Your task to perform on an android device: clear all cookies in the chrome app Image 0: 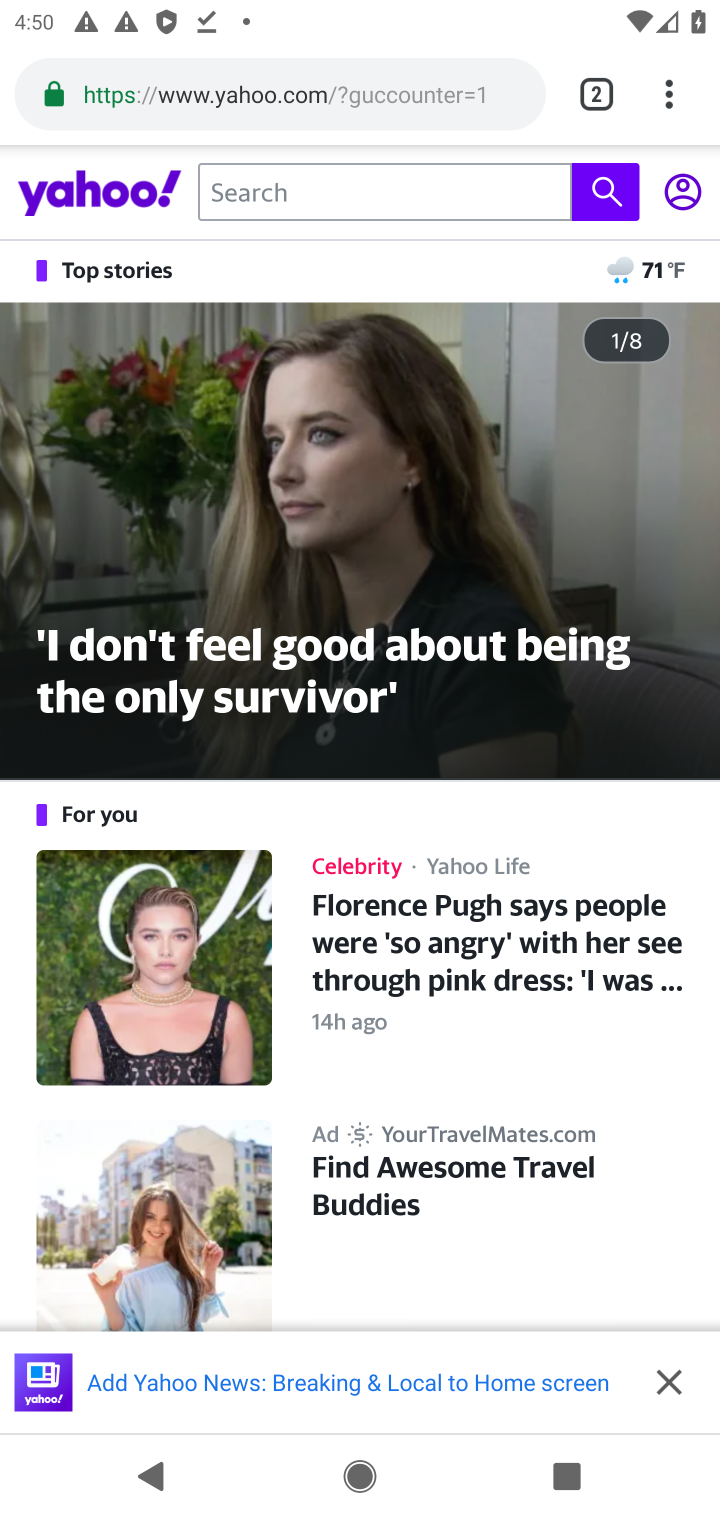
Step 0: click (667, 96)
Your task to perform on an android device: clear all cookies in the chrome app Image 1: 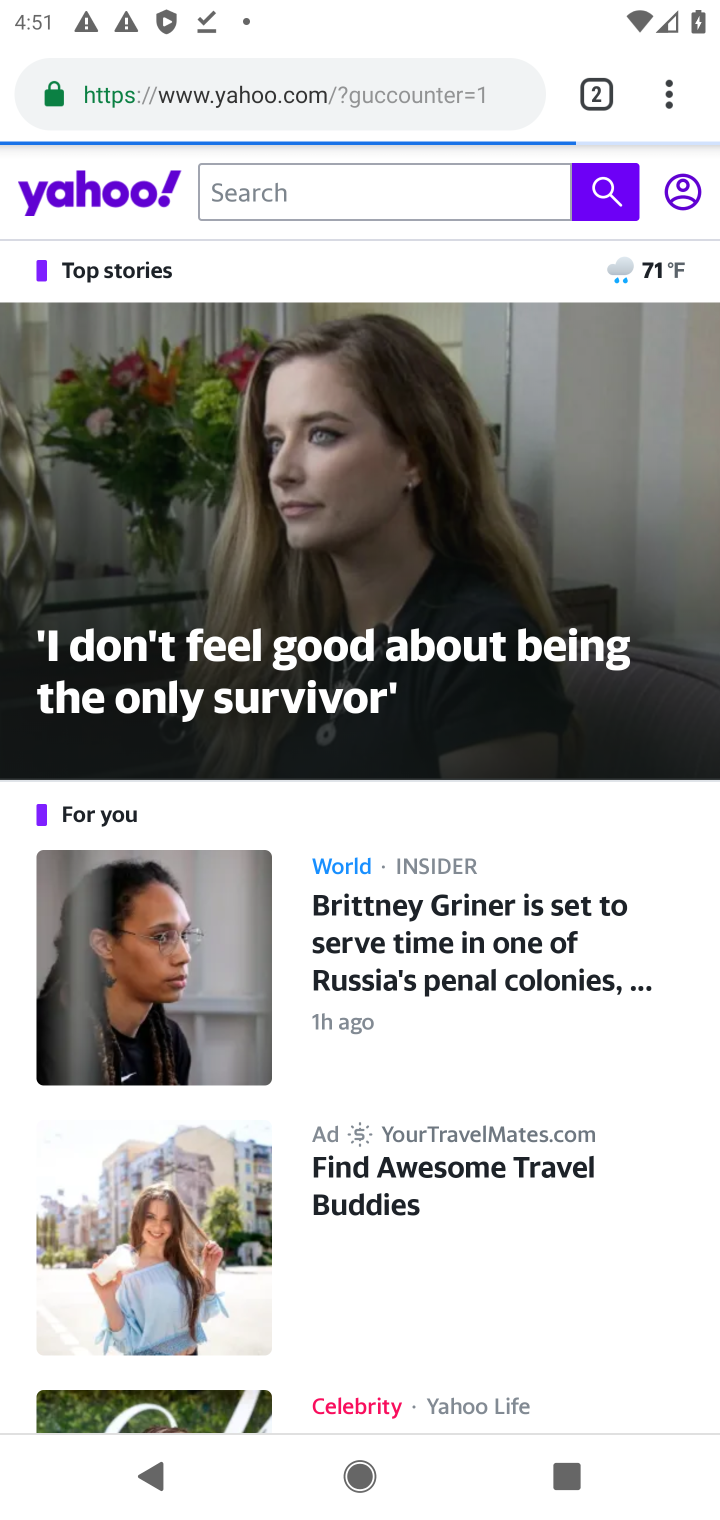
Step 1: drag from (668, 105) to (360, 533)
Your task to perform on an android device: clear all cookies in the chrome app Image 2: 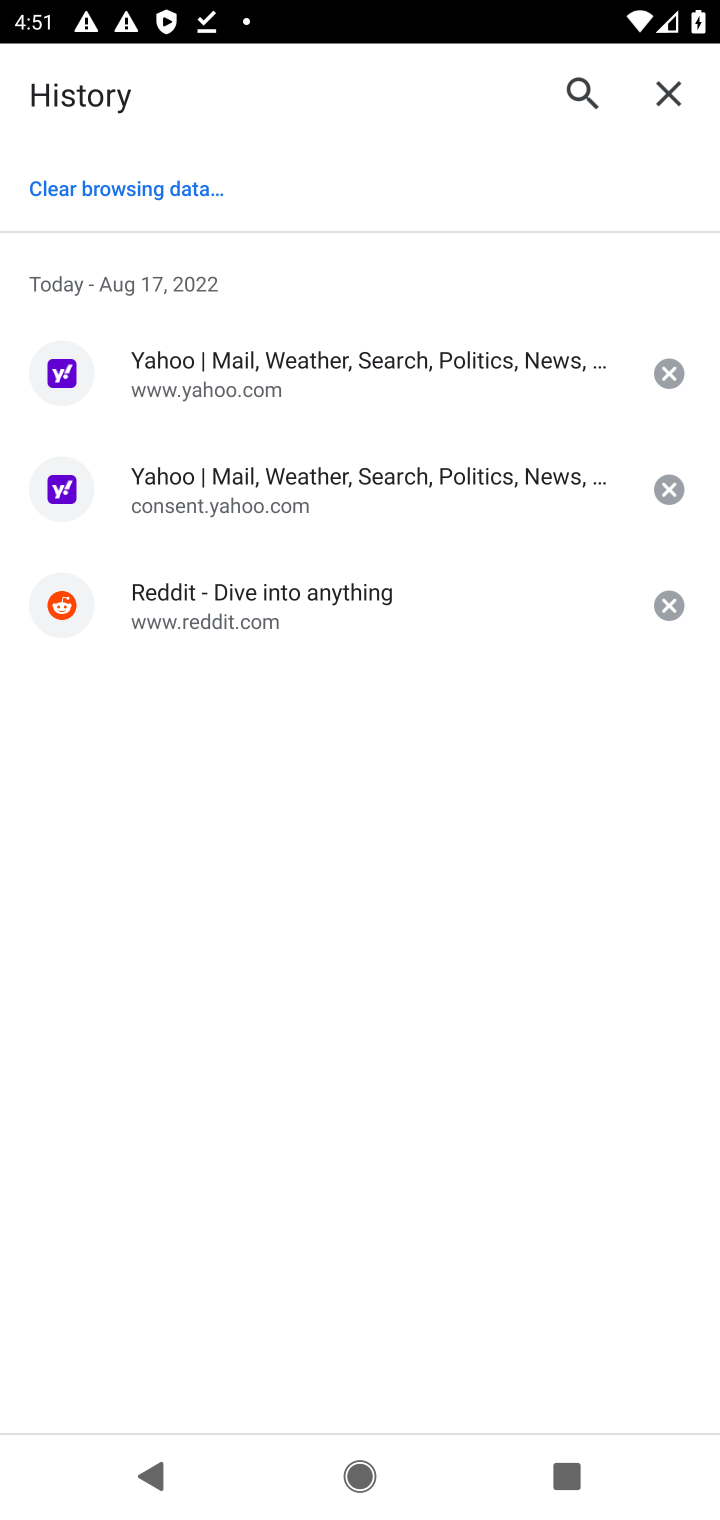
Step 2: click (120, 188)
Your task to perform on an android device: clear all cookies in the chrome app Image 3: 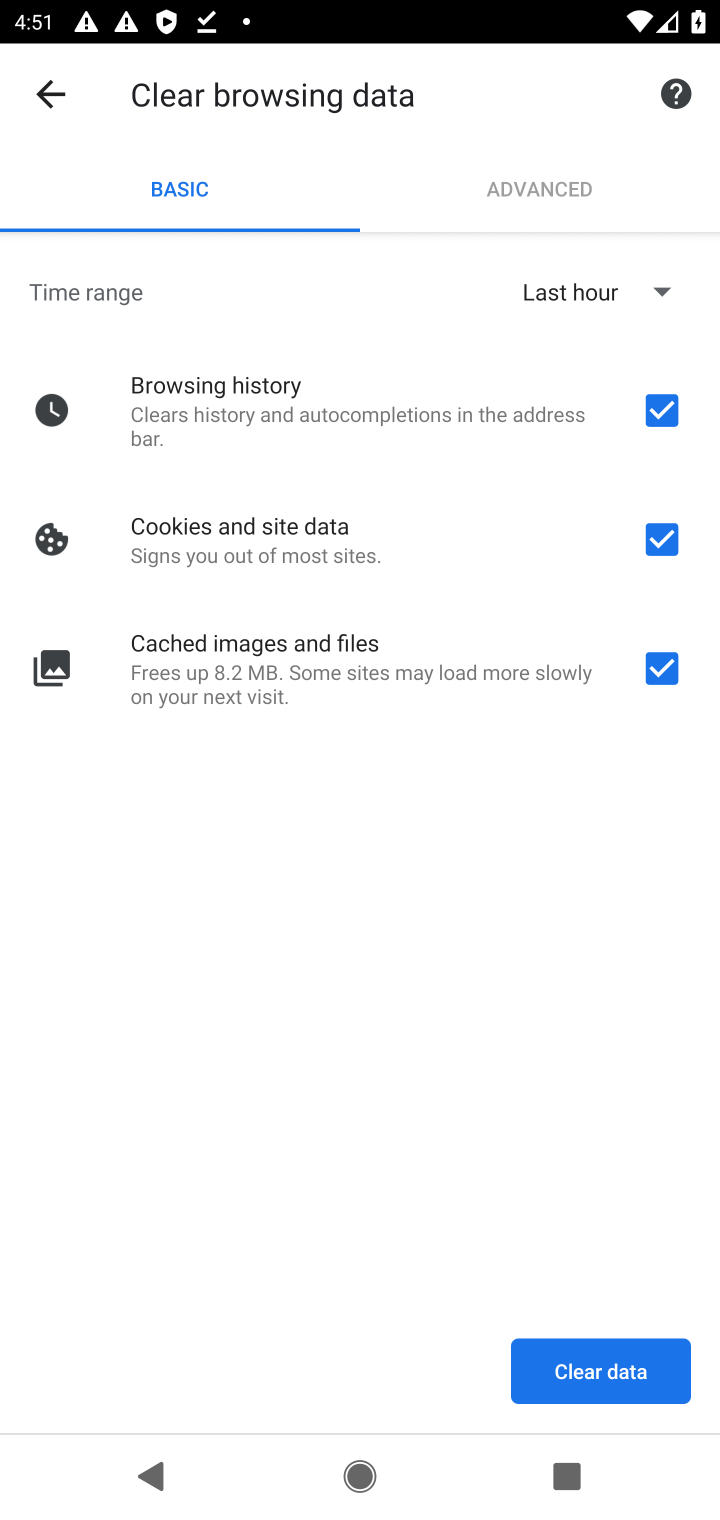
Step 3: click (655, 408)
Your task to perform on an android device: clear all cookies in the chrome app Image 4: 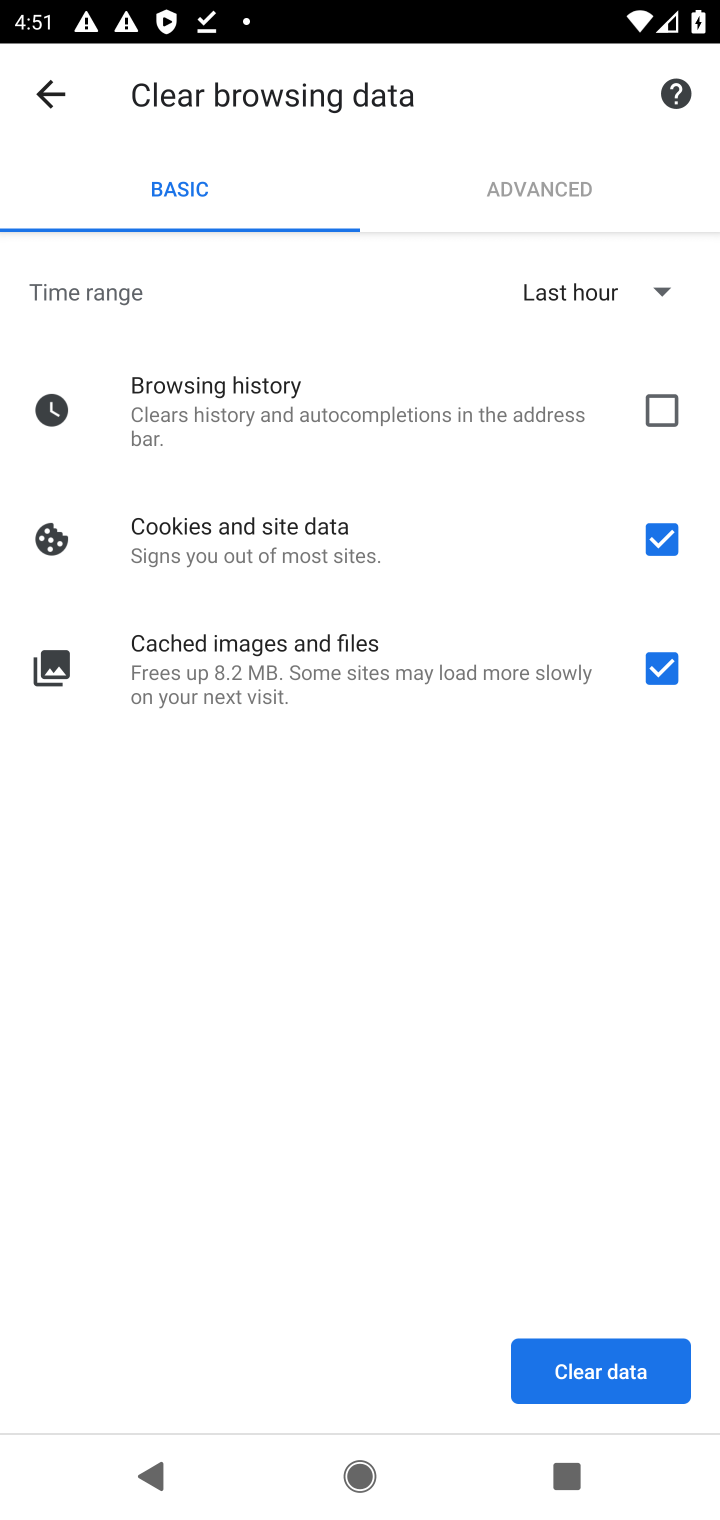
Step 4: click (649, 653)
Your task to perform on an android device: clear all cookies in the chrome app Image 5: 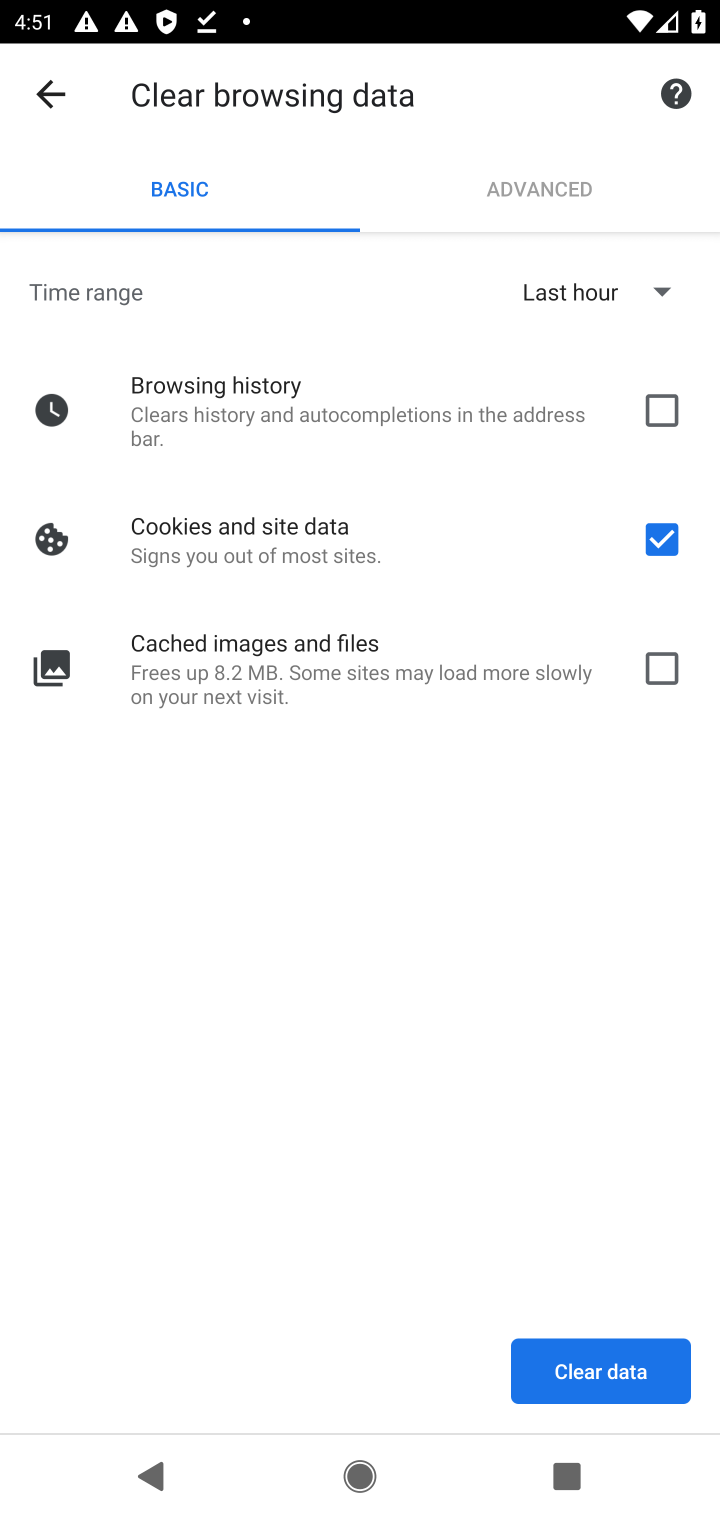
Step 5: click (626, 1376)
Your task to perform on an android device: clear all cookies in the chrome app Image 6: 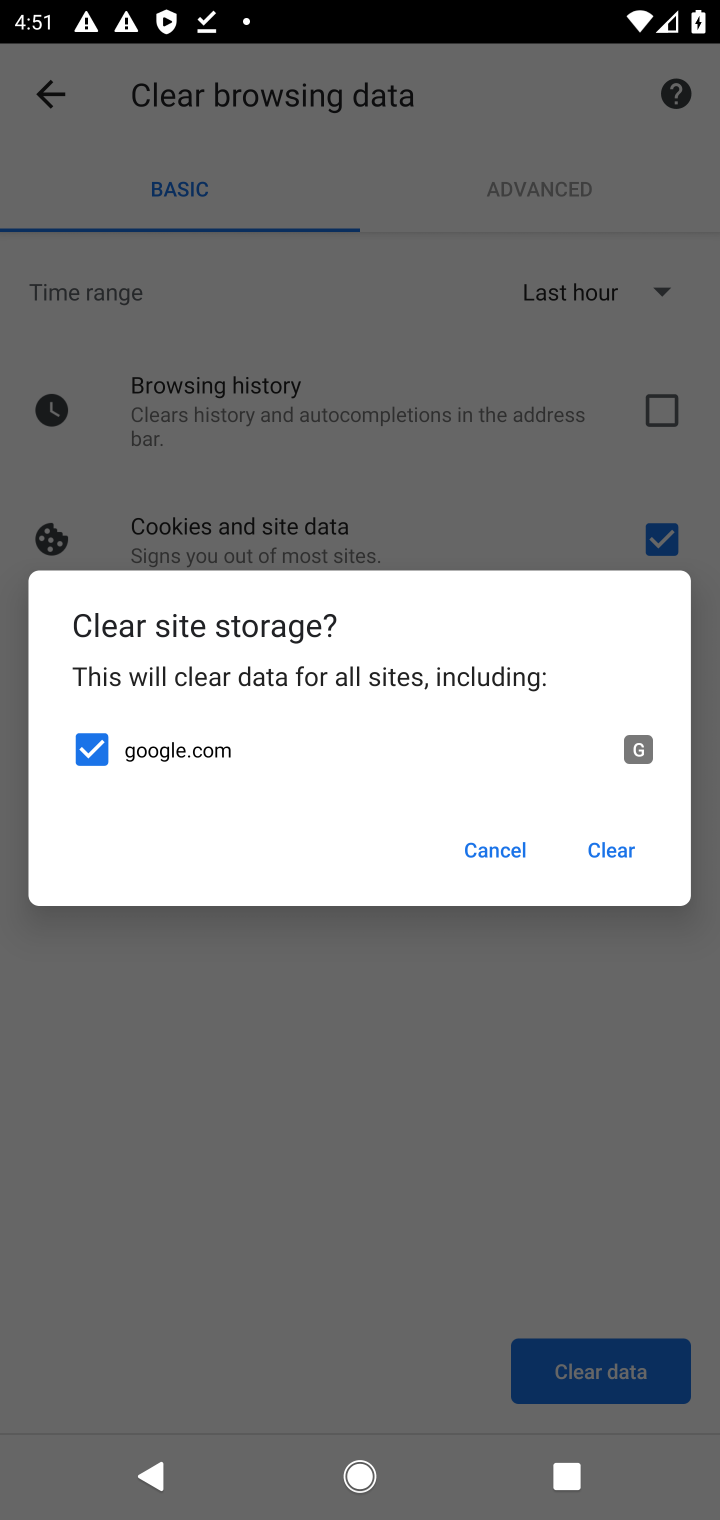
Step 6: click (609, 835)
Your task to perform on an android device: clear all cookies in the chrome app Image 7: 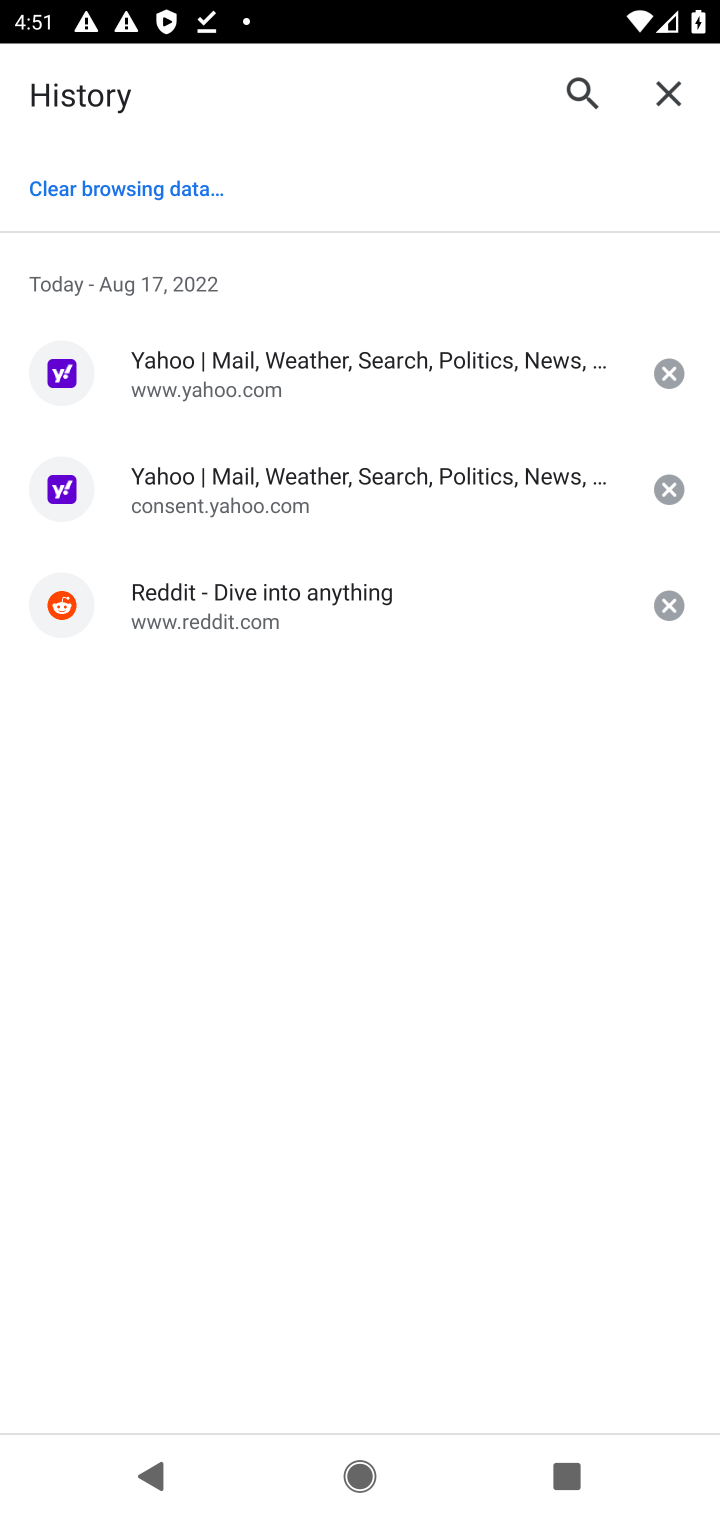
Step 7: task complete